Your task to perform on an android device: set the timer Image 0: 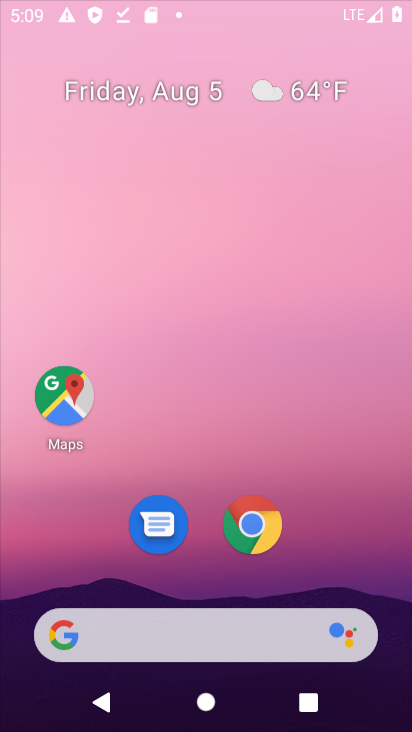
Step 0: click (213, 98)
Your task to perform on an android device: set the timer Image 1: 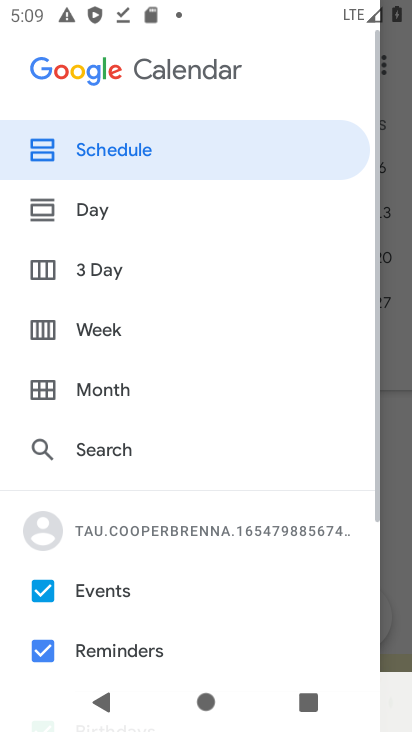
Step 1: drag from (217, 585) to (218, 132)
Your task to perform on an android device: set the timer Image 2: 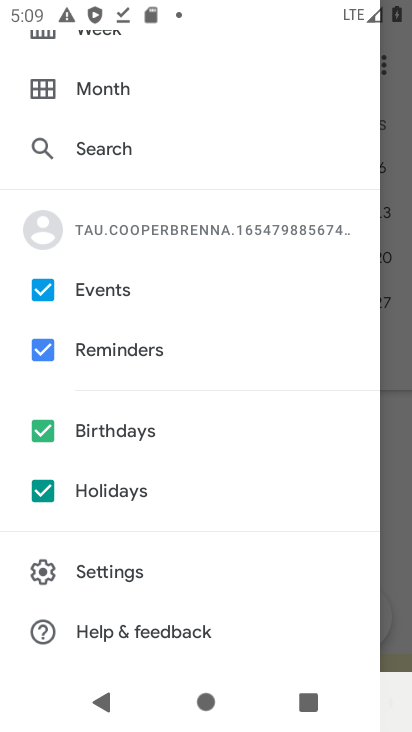
Step 2: press back button
Your task to perform on an android device: set the timer Image 3: 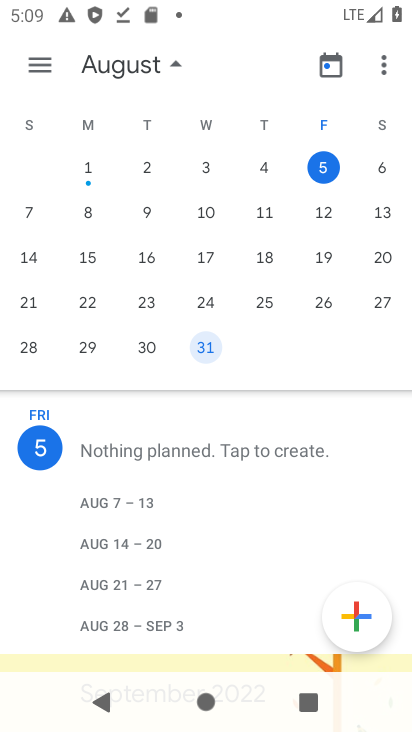
Step 3: press home button
Your task to perform on an android device: set the timer Image 4: 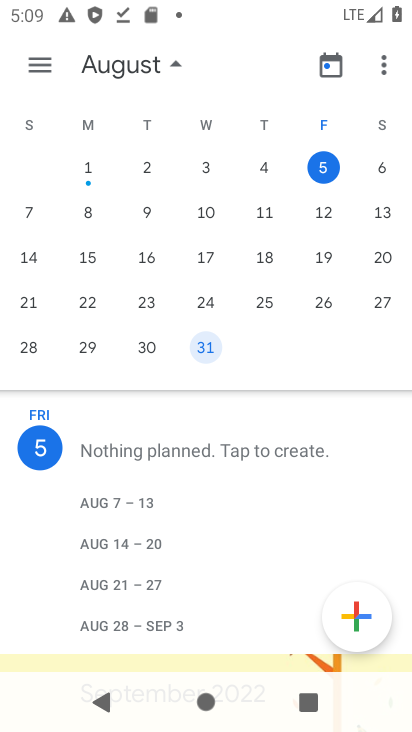
Step 4: press home button
Your task to perform on an android device: set the timer Image 5: 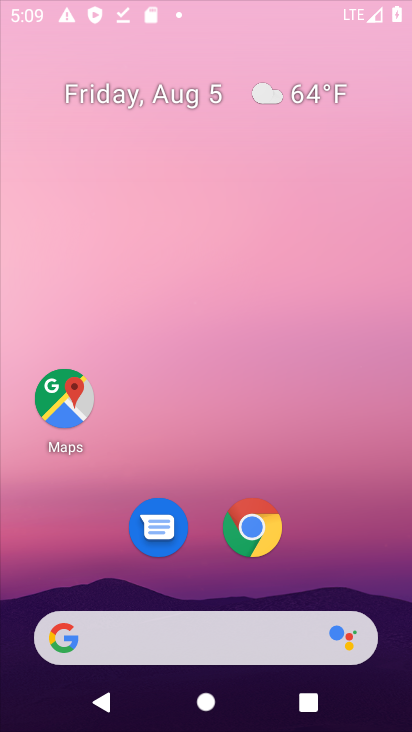
Step 5: press home button
Your task to perform on an android device: set the timer Image 6: 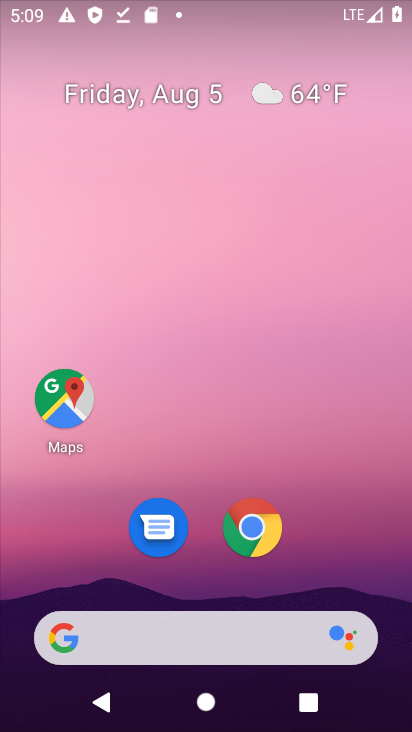
Step 6: drag from (168, 570) to (133, 251)
Your task to perform on an android device: set the timer Image 7: 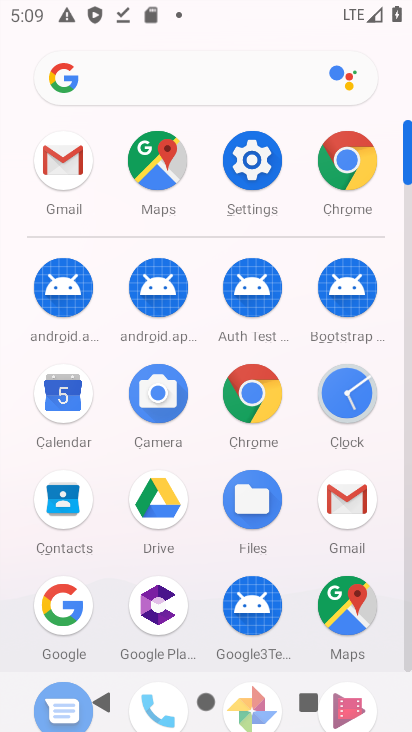
Step 7: click (330, 400)
Your task to perform on an android device: set the timer Image 8: 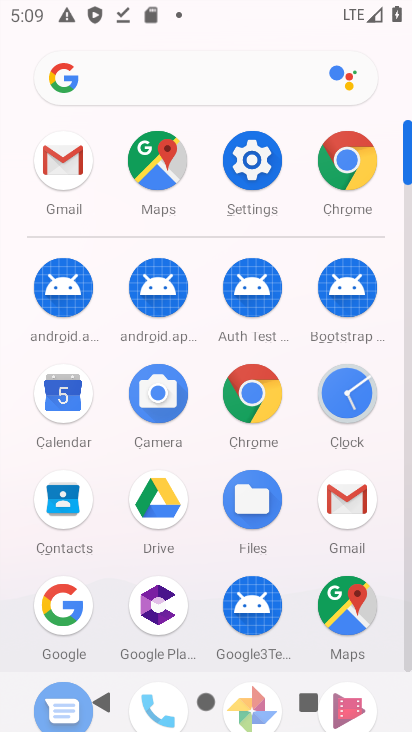
Step 8: click (325, 398)
Your task to perform on an android device: set the timer Image 9: 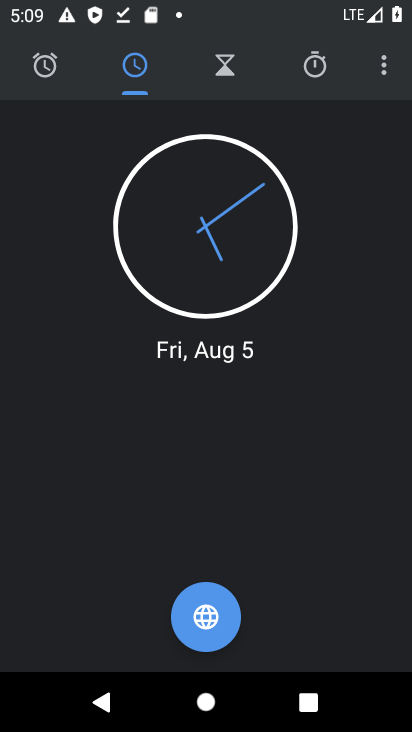
Step 9: click (232, 72)
Your task to perform on an android device: set the timer Image 10: 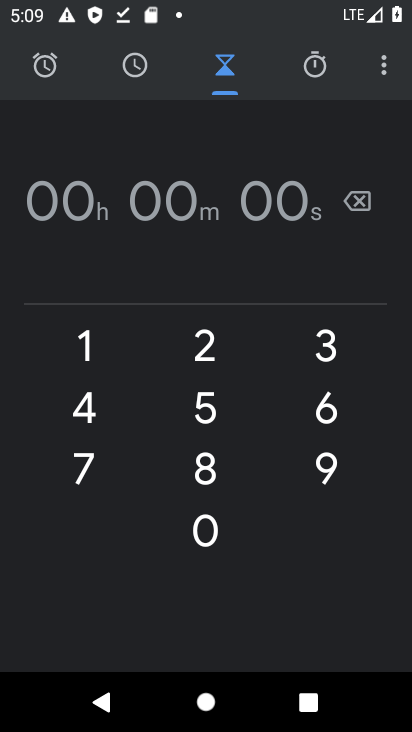
Step 10: click (215, 350)
Your task to perform on an android device: set the timer Image 11: 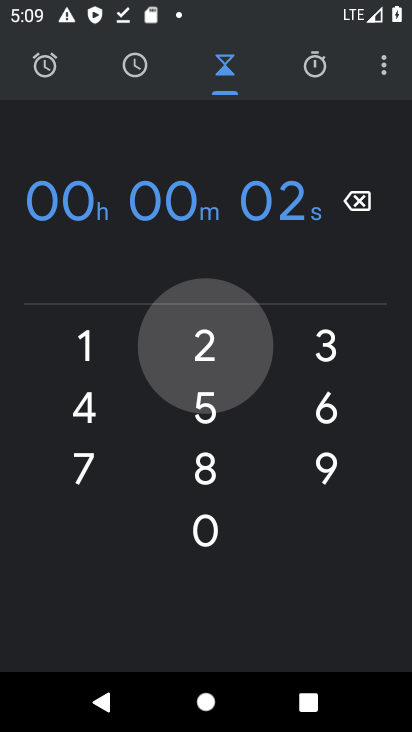
Step 11: click (209, 435)
Your task to perform on an android device: set the timer Image 12: 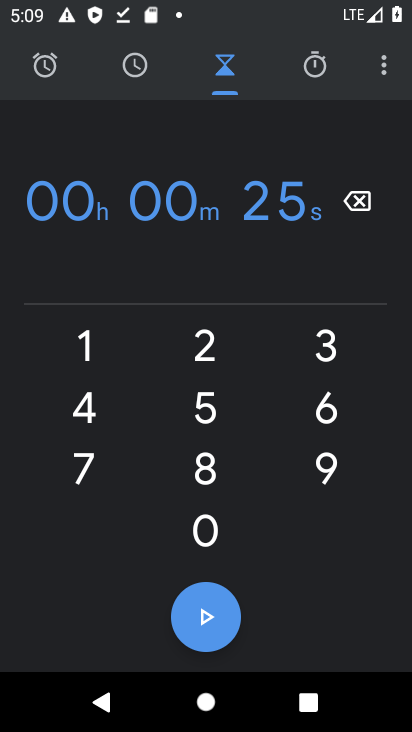
Step 12: click (195, 480)
Your task to perform on an android device: set the timer Image 13: 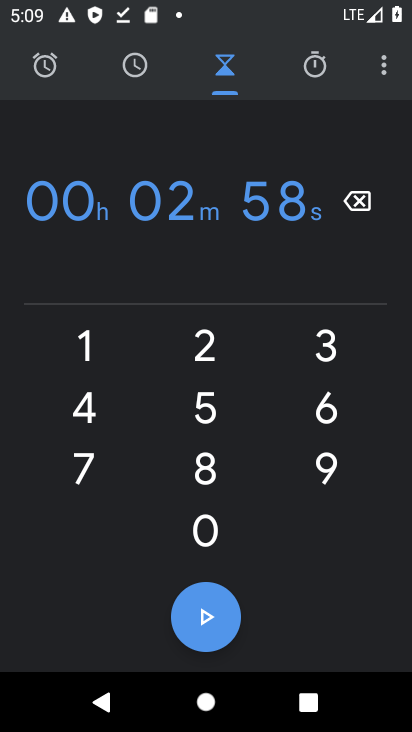
Step 13: click (196, 615)
Your task to perform on an android device: set the timer Image 14: 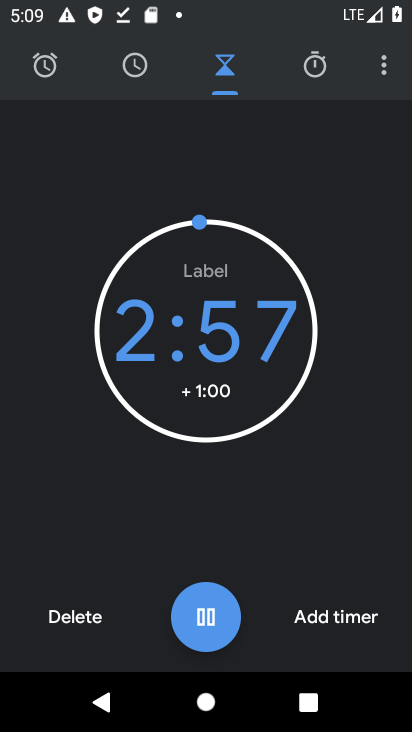
Step 14: task complete